Your task to perform on an android device: read, delete, or share a saved page in the chrome app Image 0: 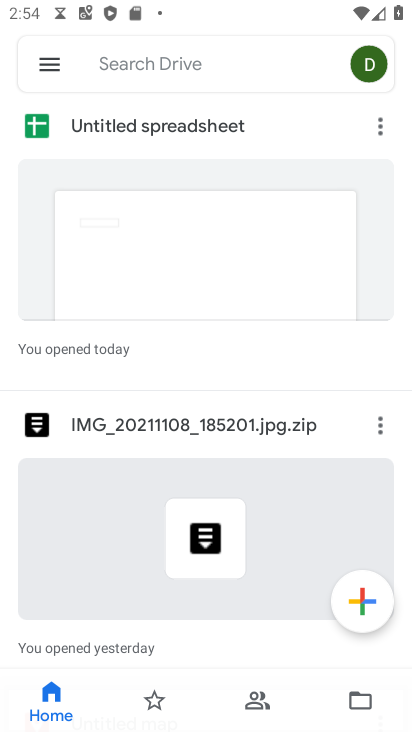
Step 0: press home button
Your task to perform on an android device: read, delete, or share a saved page in the chrome app Image 1: 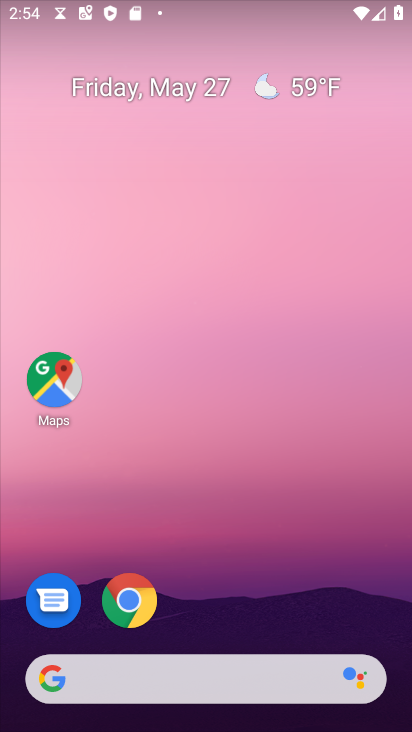
Step 1: click (130, 598)
Your task to perform on an android device: read, delete, or share a saved page in the chrome app Image 2: 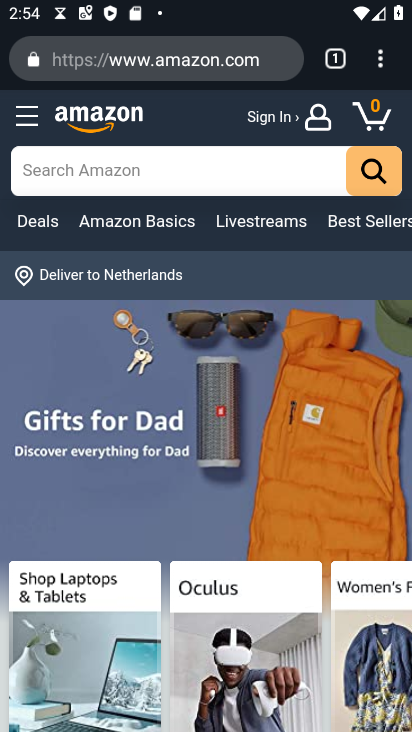
Step 2: click (381, 60)
Your task to perform on an android device: read, delete, or share a saved page in the chrome app Image 3: 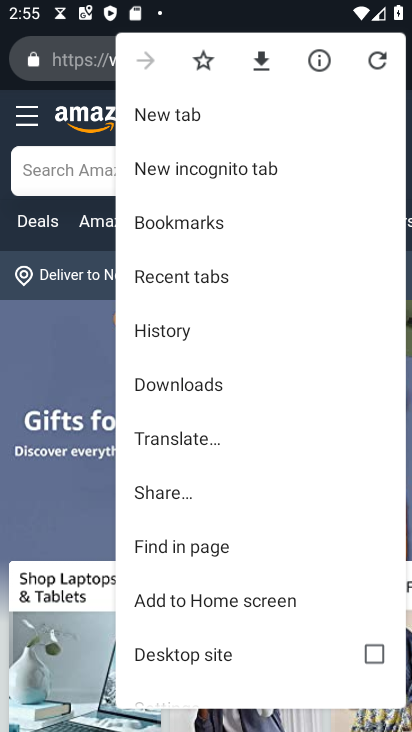
Step 3: click (188, 383)
Your task to perform on an android device: read, delete, or share a saved page in the chrome app Image 4: 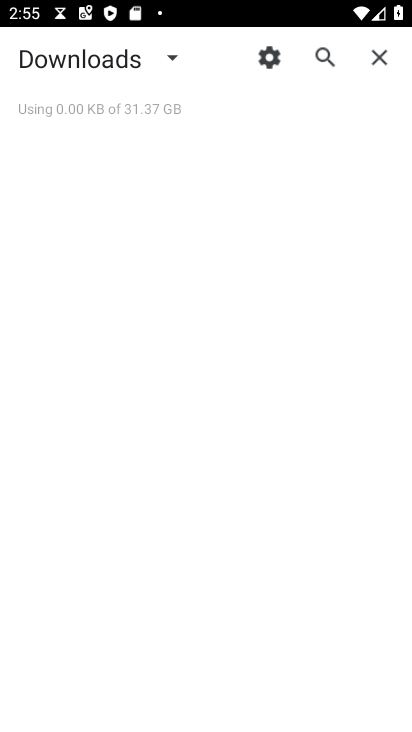
Step 4: click (171, 63)
Your task to perform on an android device: read, delete, or share a saved page in the chrome app Image 5: 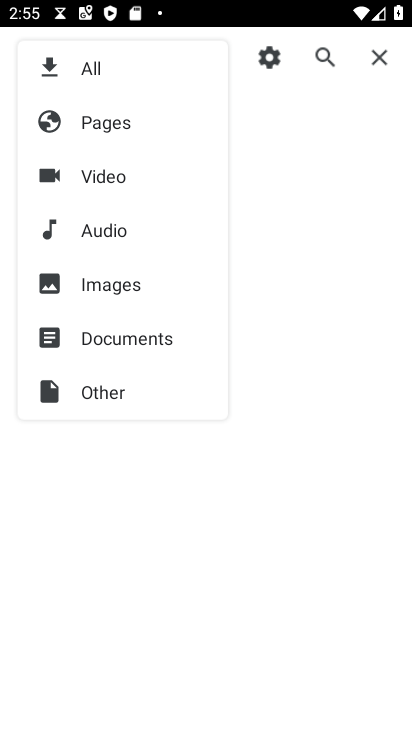
Step 5: click (157, 110)
Your task to perform on an android device: read, delete, or share a saved page in the chrome app Image 6: 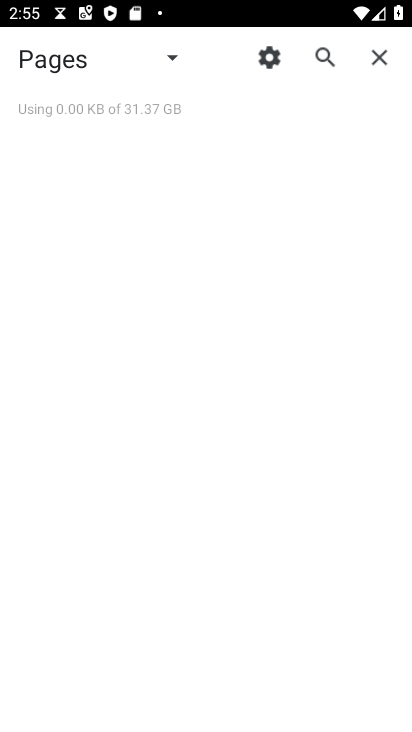
Step 6: task complete